Your task to perform on an android device: Open wifi settings Image 0: 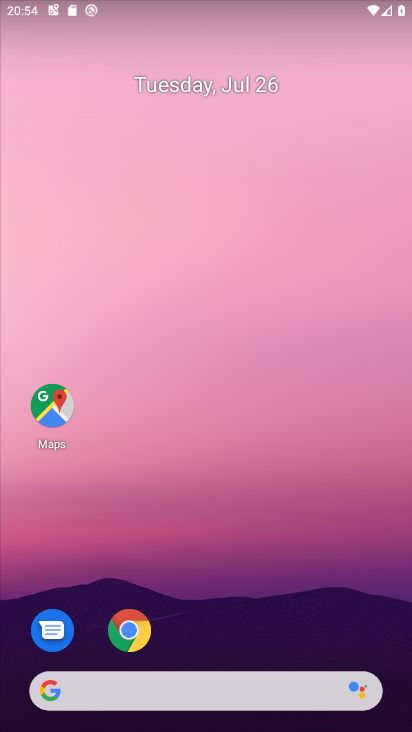
Step 0: drag from (394, 712) to (247, 52)
Your task to perform on an android device: Open wifi settings Image 1: 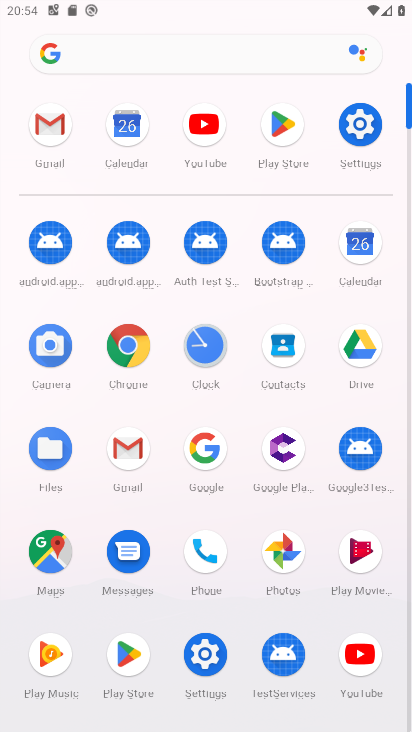
Step 1: click (199, 646)
Your task to perform on an android device: Open wifi settings Image 2: 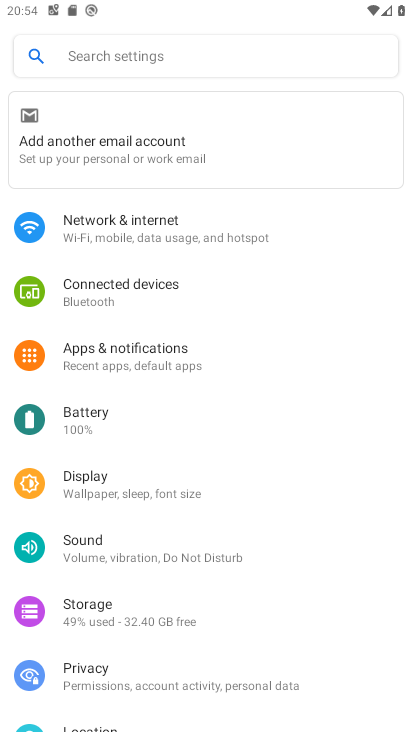
Step 2: drag from (306, 582) to (301, 329)
Your task to perform on an android device: Open wifi settings Image 3: 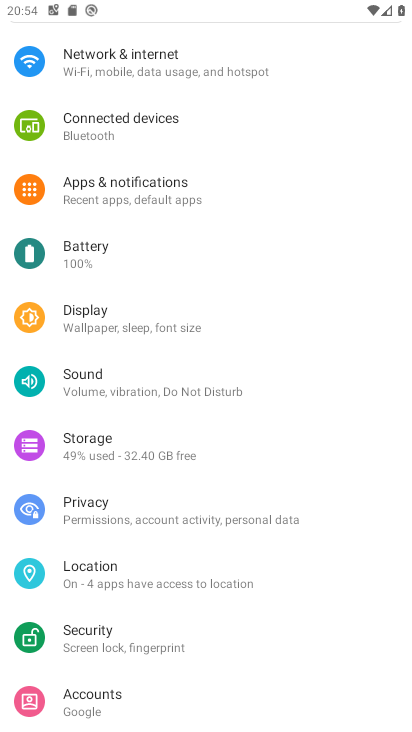
Step 3: click (104, 60)
Your task to perform on an android device: Open wifi settings Image 4: 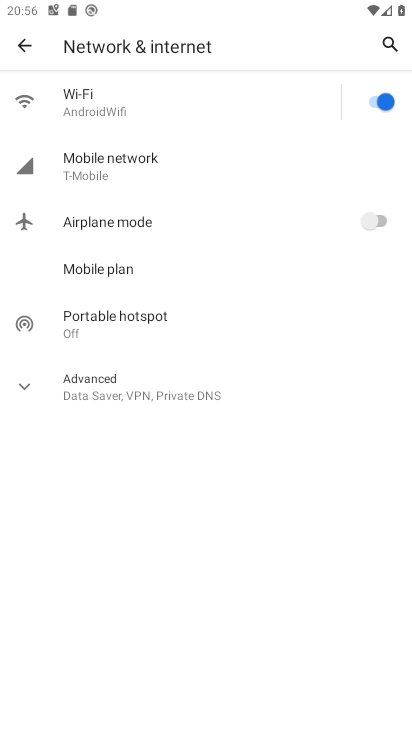
Step 4: click (137, 110)
Your task to perform on an android device: Open wifi settings Image 5: 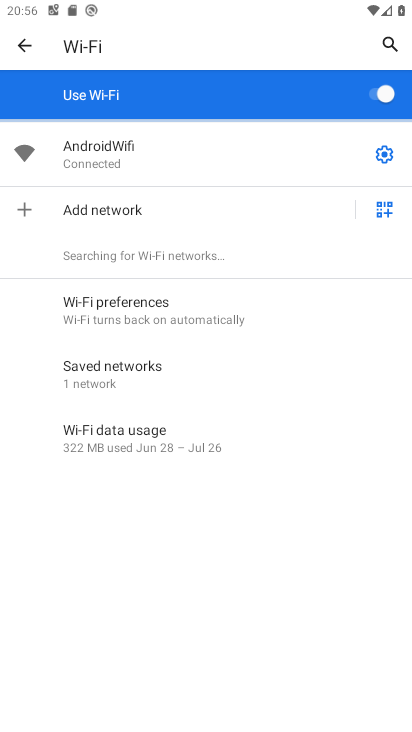
Step 5: click (379, 152)
Your task to perform on an android device: Open wifi settings Image 6: 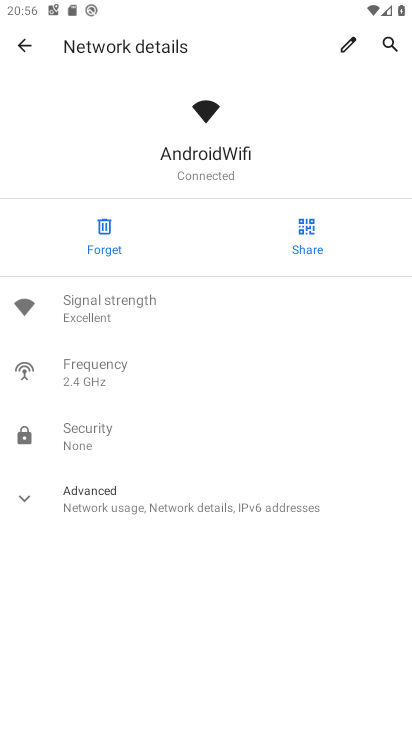
Step 6: task complete